Your task to perform on an android device: What's the weather going to be tomorrow? Image 0: 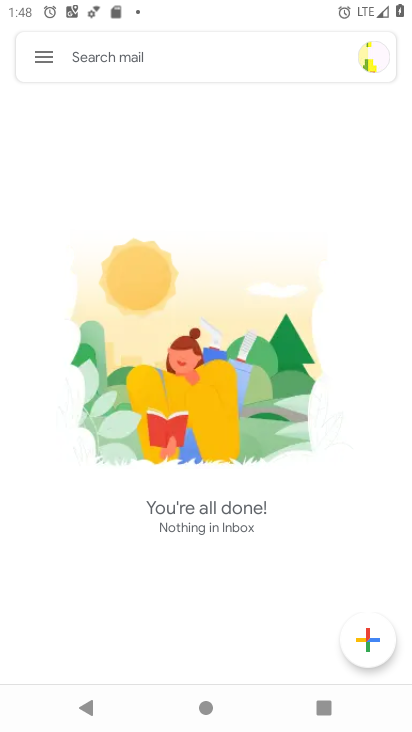
Step 0: press home button
Your task to perform on an android device: What's the weather going to be tomorrow? Image 1: 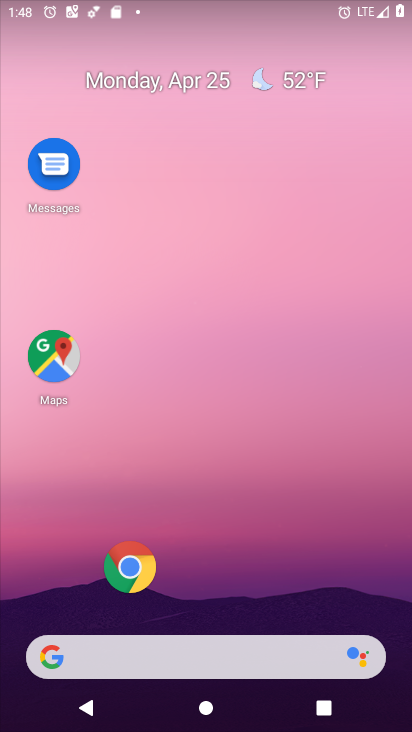
Step 1: drag from (243, 274) to (255, 154)
Your task to perform on an android device: What's the weather going to be tomorrow? Image 2: 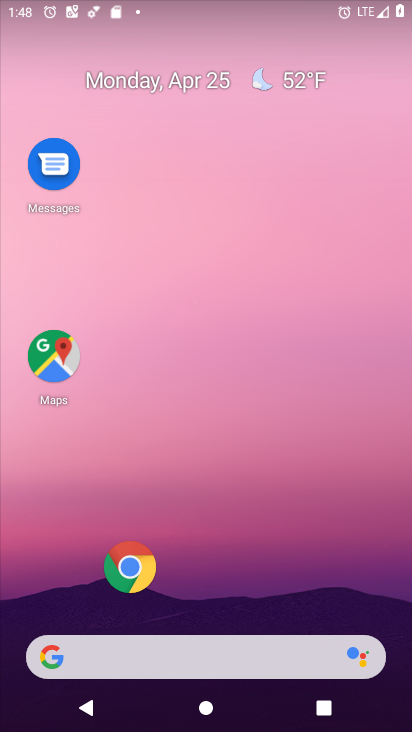
Step 2: drag from (252, 398) to (258, 48)
Your task to perform on an android device: What's the weather going to be tomorrow? Image 3: 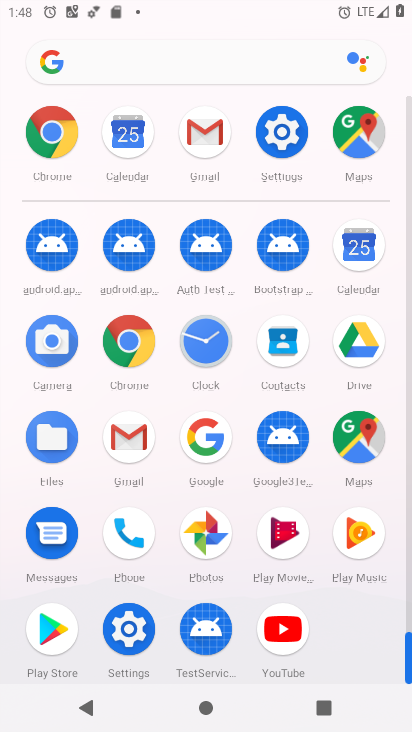
Step 3: click (218, 439)
Your task to perform on an android device: What's the weather going to be tomorrow? Image 4: 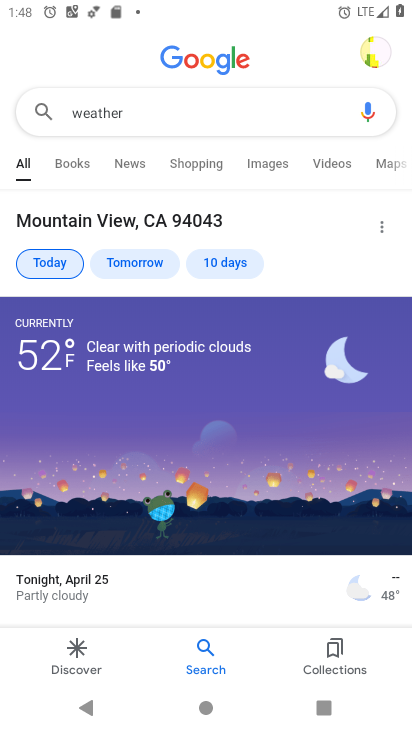
Step 4: click (146, 273)
Your task to perform on an android device: What's the weather going to be tomorrow? Image 5: 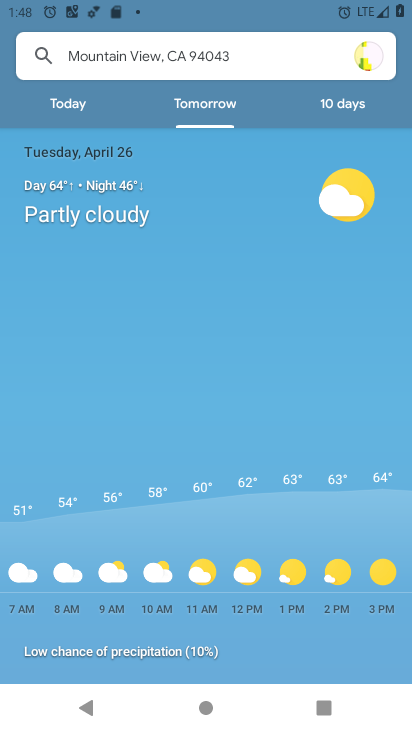
Step 5: task complete